Your task to perform on an android device: check out phone information Image 0: 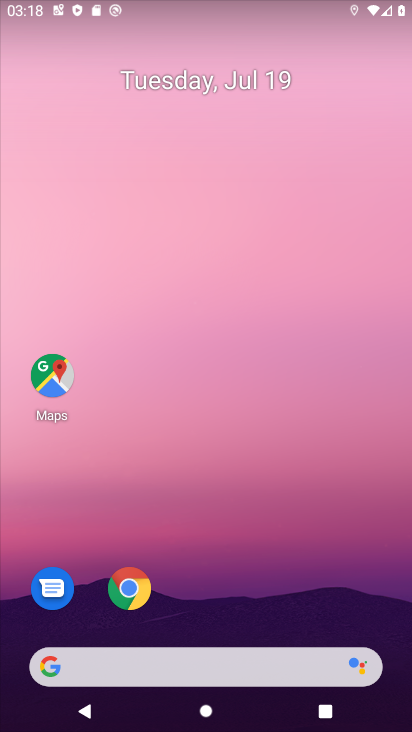
Step 0: drag from (256, 533) to (218, 56)
Your task to perform on an android device: check out phone information Image 1: 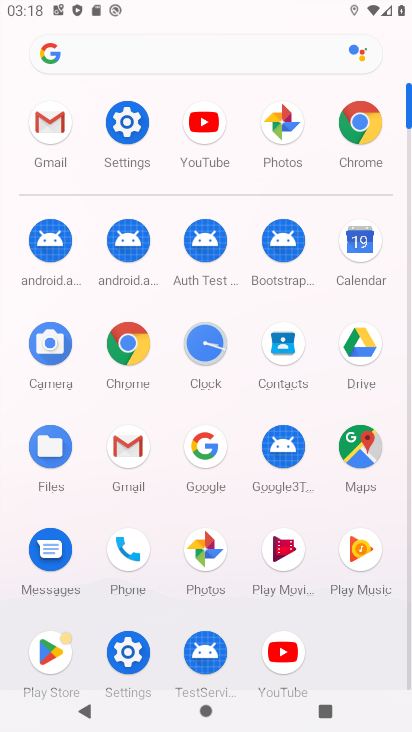
Step 1: click (120, 120)
Your task to perform on an android device: check out phone information Image 2: 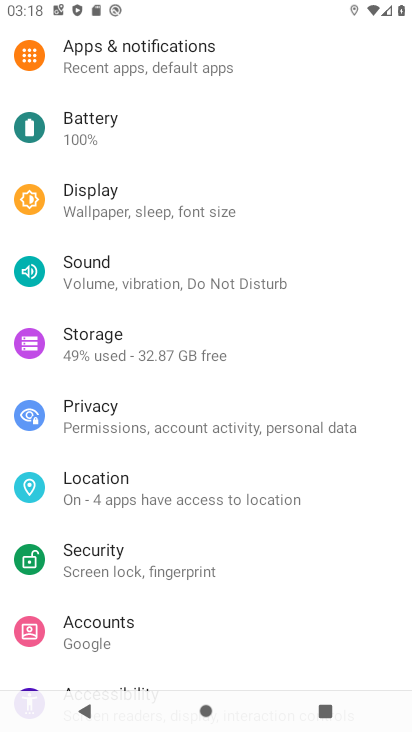
Step 2: drag from (250, 635) to (267, 233)
Your task to perform on an android device: check out phone information Image 3: 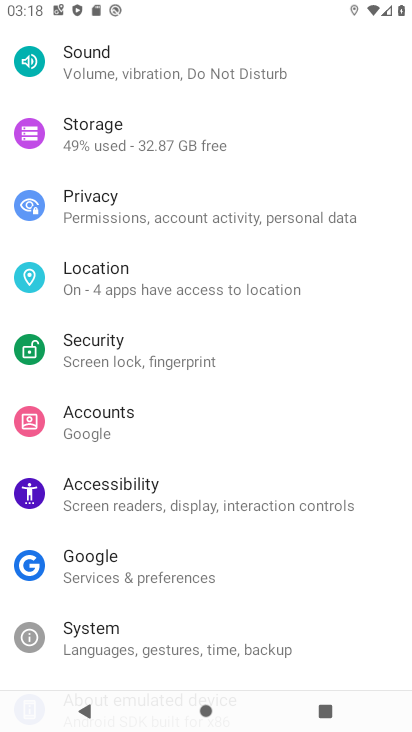
Step 3: drag from (223, 606) to (215, 68)
Your task to perform on an android device: check out phone information Image 4: 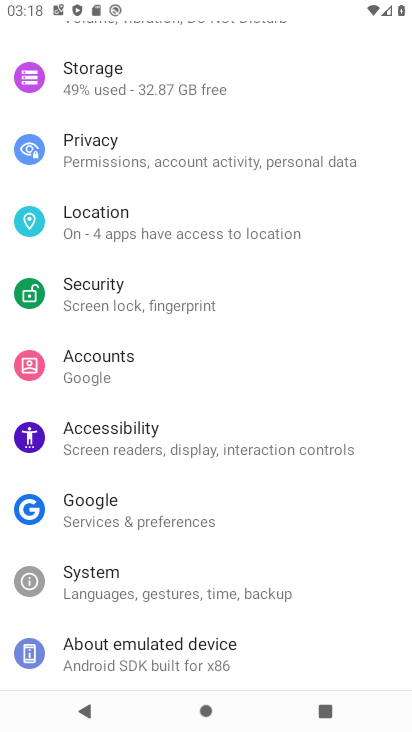
Step 4: click (140, 635)
Your task to perform on an android device: check out phone information Image 5: 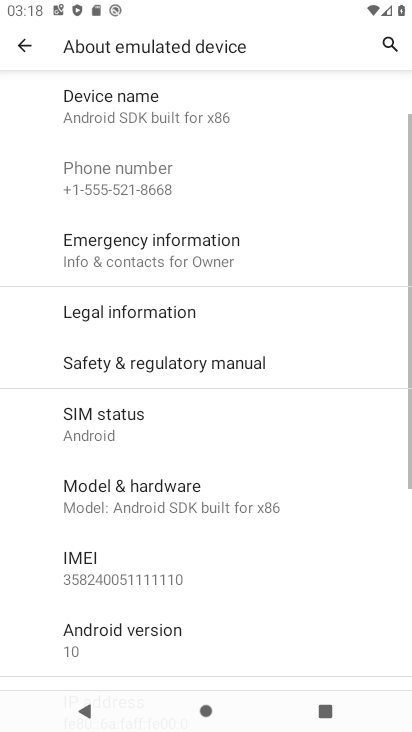
Step 5: task complete